Your task to perform on an android device: Check the weather Image 0: 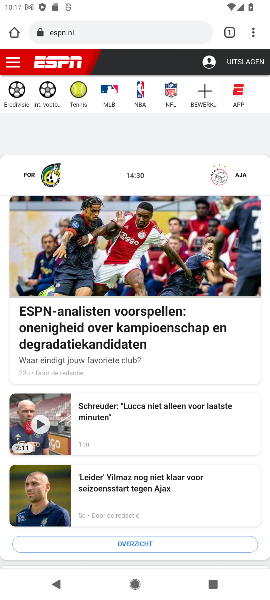
Step 0: press home button
Your task to perform on an android device: Check the weather Image 1: 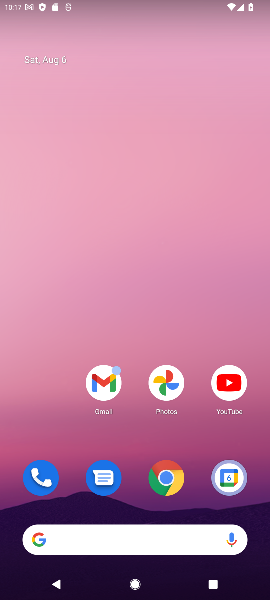
Step 1: drag from (133, 466) to (138, 0)
Your task to perform on an android device: Check the weather Image 2: 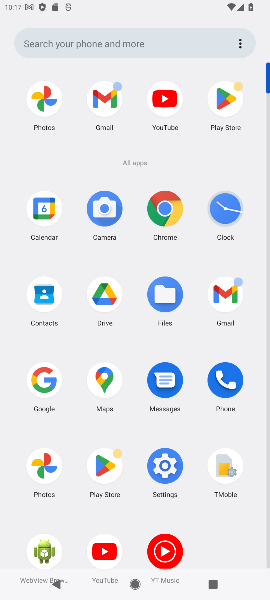
Step 2: click (48, 379)
Your task to perform on an android device: Check the weather Image 3: 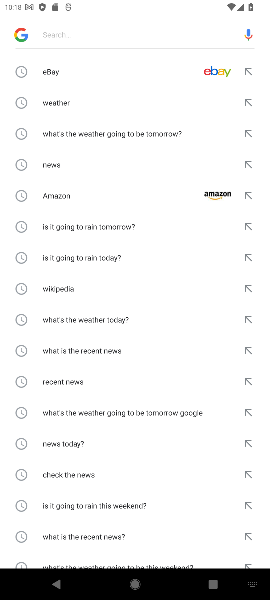
Step 3: click (61, 102)
Your task to perform on an android device: Check the weather Image 4: 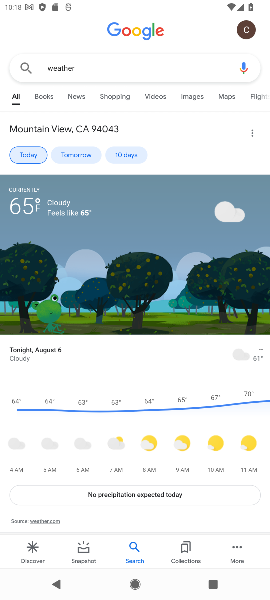
Step 4: click (29, 151)
Your task to perform on an android device: Check the weather Image 5: 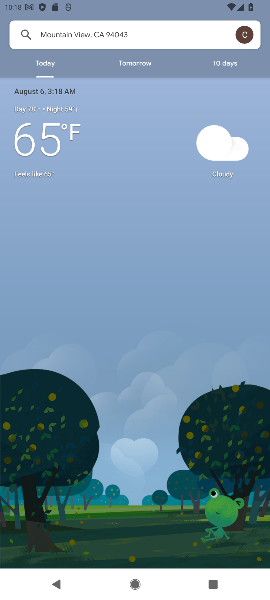
Step 5: task complete